Your task to perform on an android device: Open the Play Movies app and select the watchlist tab. Image 0: 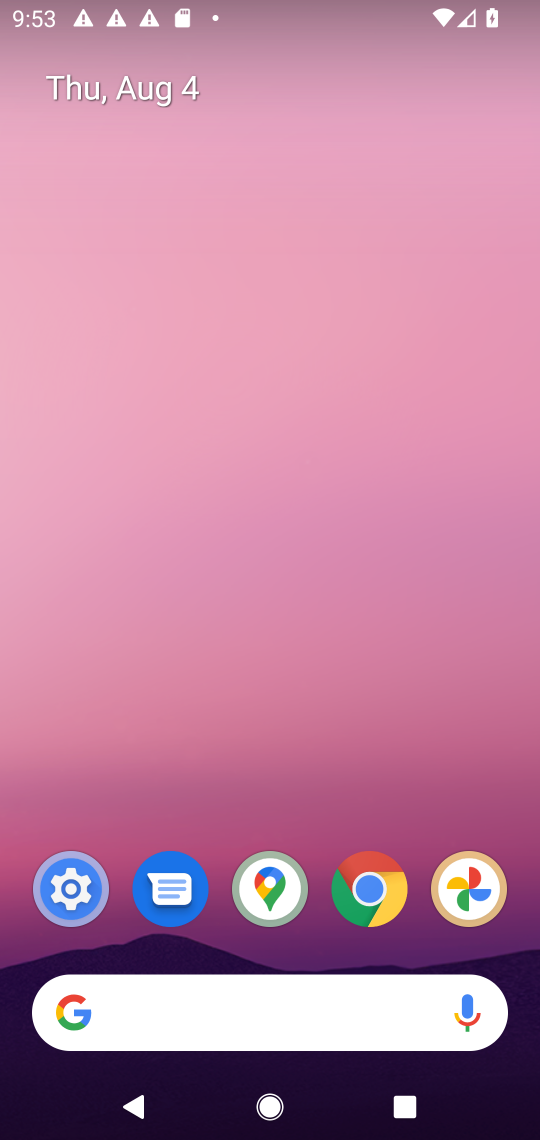
Step 0: drag from (313, 829) to (324, 391)
Your task to perform on an android device: Open the Play Movies app and select the watchlist tab. Image 1: 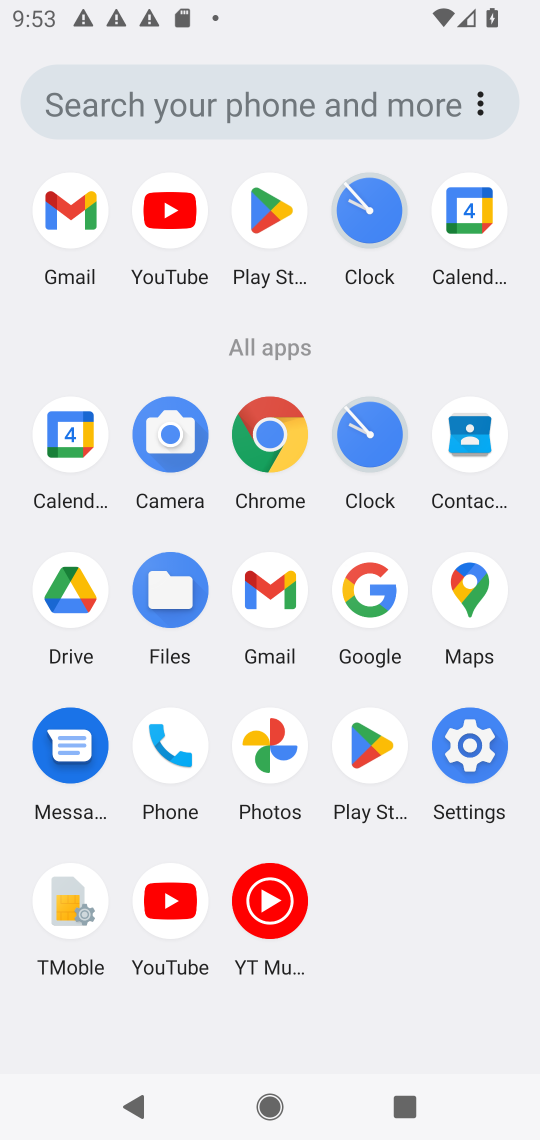
Step 1: task complete